Your task to perform on an android device: Open Chrome and go to settings Image 0: 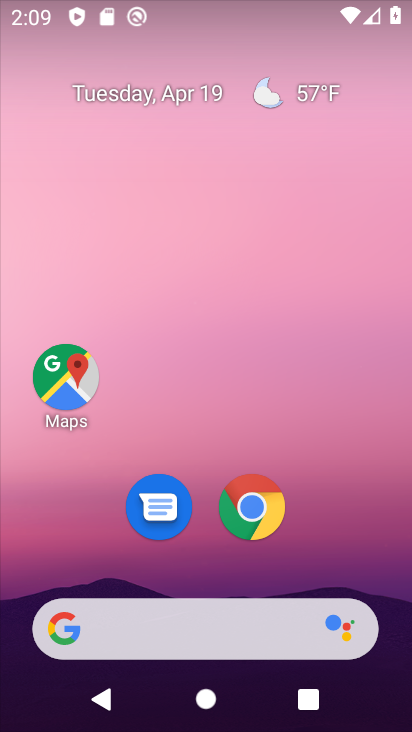
Step 0: click (264, 499)
Your task to perform on an android device: Open Chrome and go to settings Image 1: 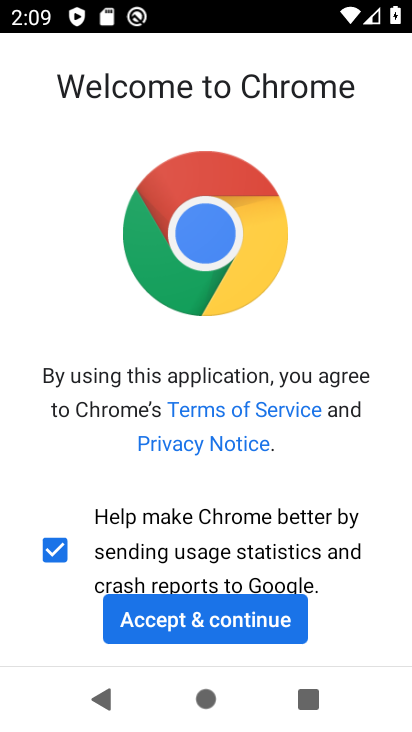
Step 1: click (233, 607)
Your task to perform on an android device: Open Chrome and go to settings Image 2: 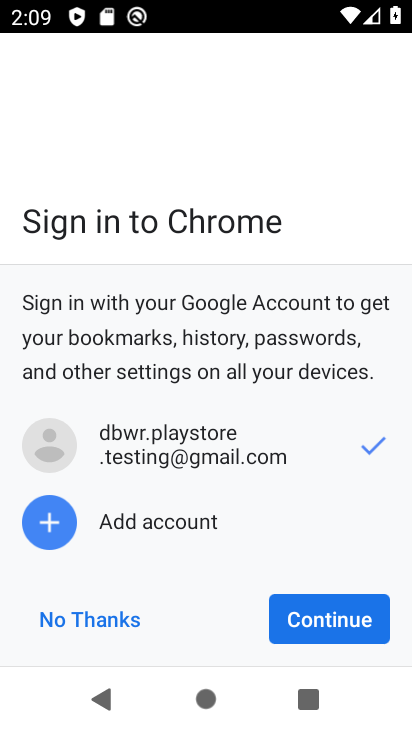
Step 2: click (381, 622)
Your task to perform on an android device: Open Chrome and go to settings Image 3: 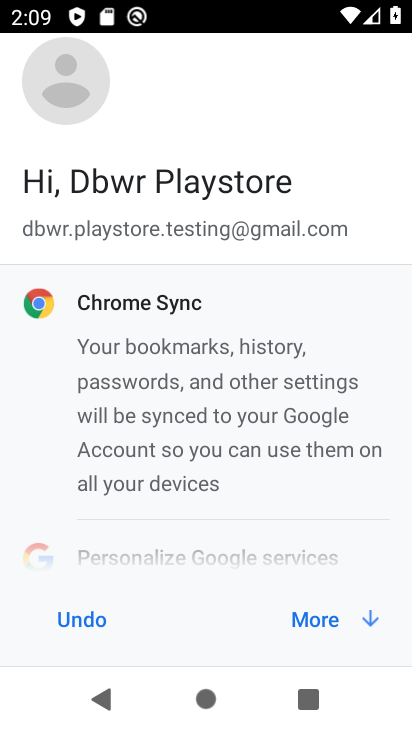
Step 3: click (355, 626)
Your task to perform on an android device: Open Chrome and go to settings Image 4: 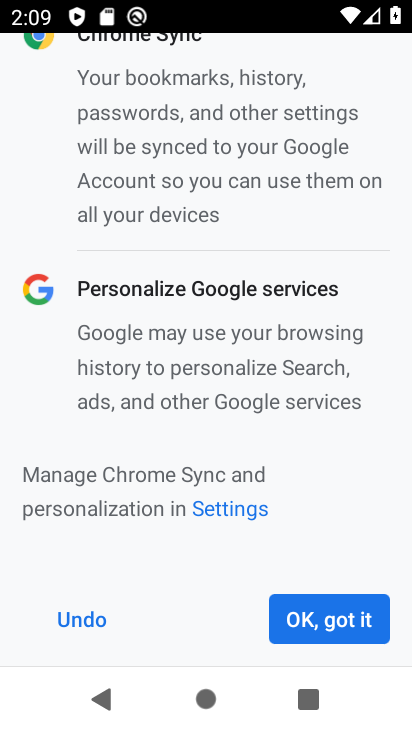
Step 4: click (352, 624)
Your task to perform on an android device: Open Chrome and go to settings Image 5: 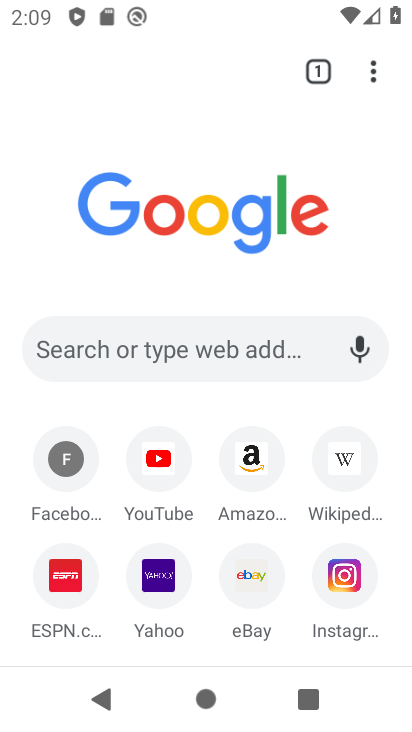
Step 5: click (385, 75)
Your task to perform on an android device: Open Chrome and go to settings Image 6: 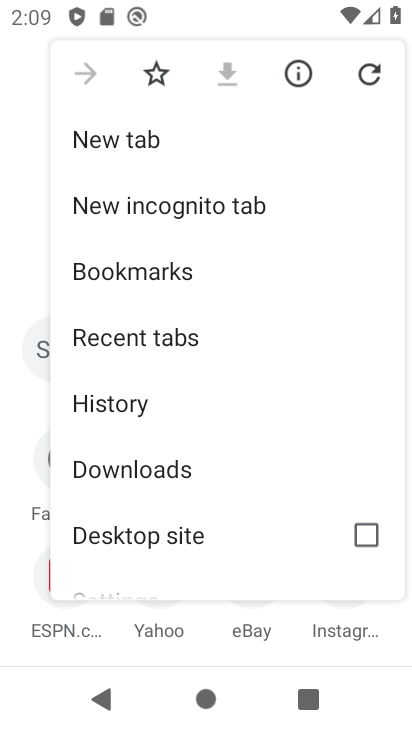
Step 6: drag from (263, 413) to (271, 42)
Your task to perform on an android device: Open Chrome and go to settings Image 7: 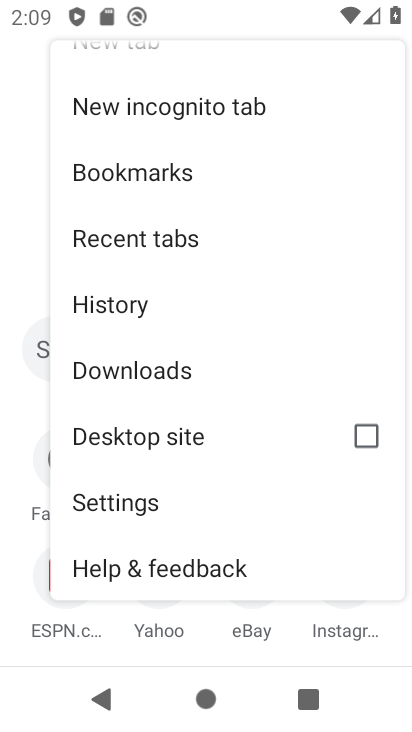
Step 7: click (113, 517)
Your task to perform on an android device: Open Chrome and go to settings Image 8: 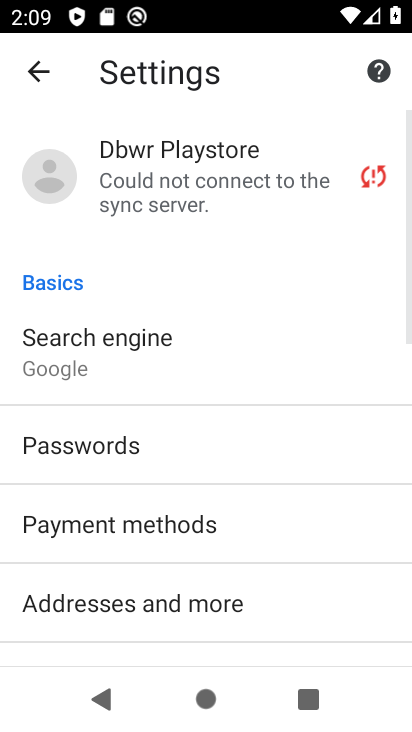
Step 8: task complete